Your task to perform on an android device: check google app version Image 0: 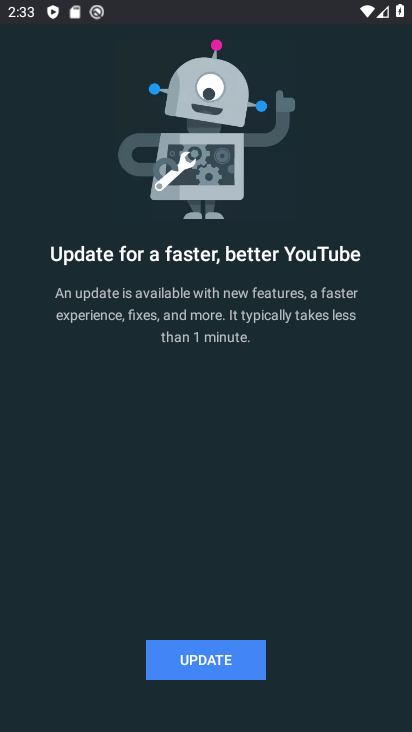
Step 0: press back button
Your task to perform on an android device: check google app version Image 1: 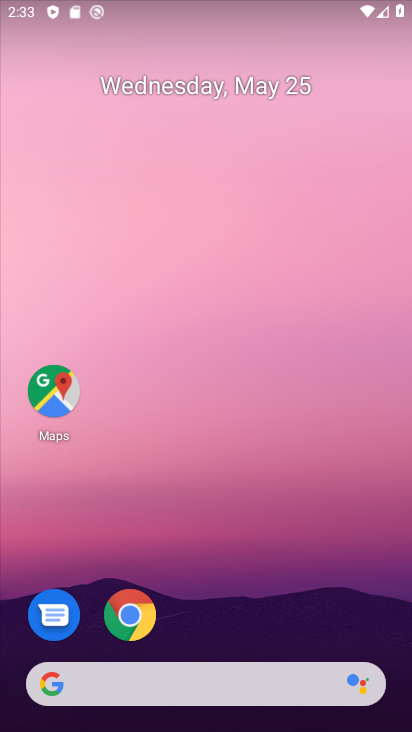
Step 1: click (138, 614)
Your task to perform on an android device: check google app version Image 2: 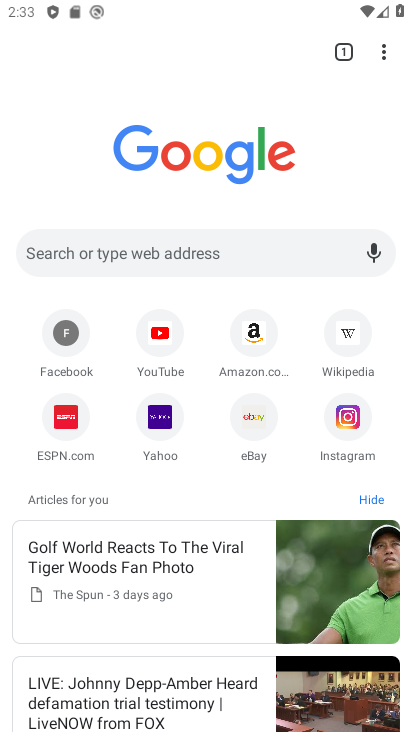
Step 2: click (388, 45)
Your task to perform on an android device: check google app version Image 3: 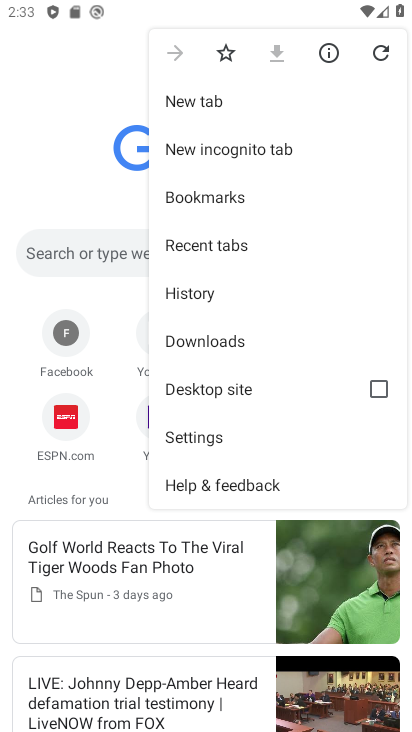
Step 3: click (299, 485)
Your task to perform on an android device: check google app version Image 4: 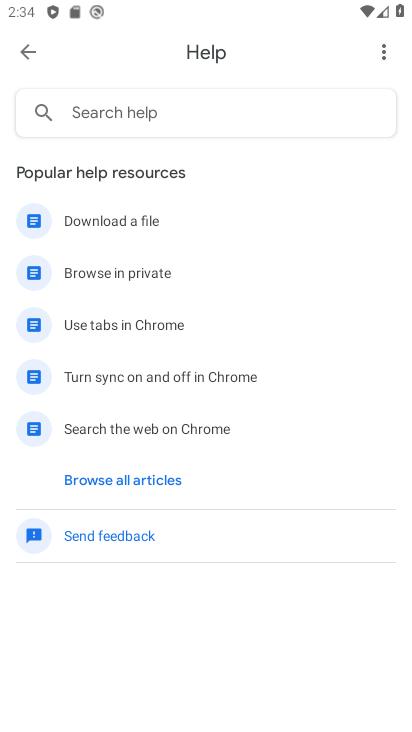
Step 4: click (385, 46)
Your task to perform on an android device: check google app version Image 5: 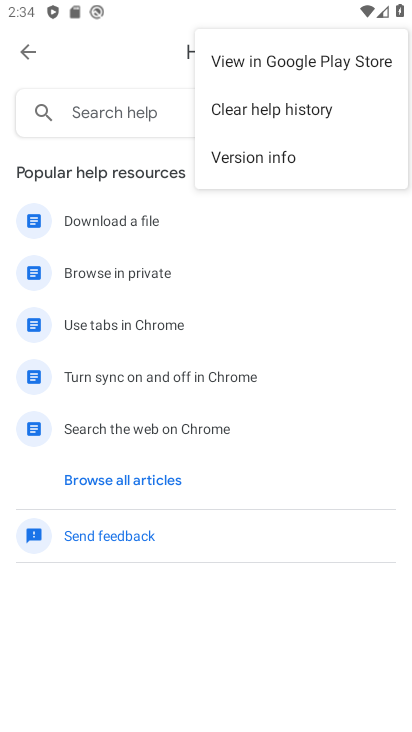
Step 5: click (296, 163)
Your task to perform on an android device: check google app version Image 6: 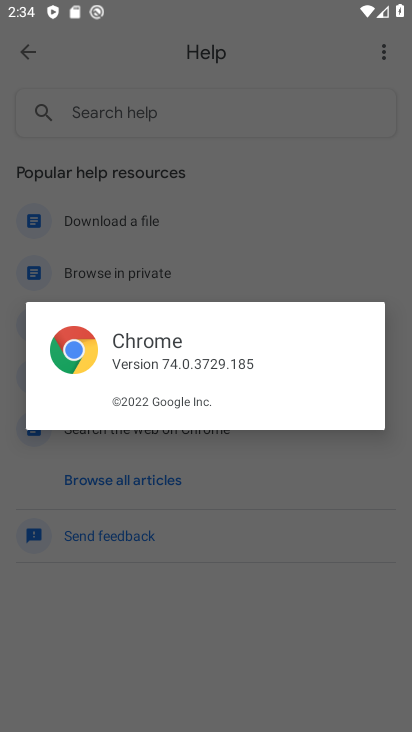
Step 6: task complete